Your task to perform on an android device: uninstall "Speedtest by Ookla" Image 0: 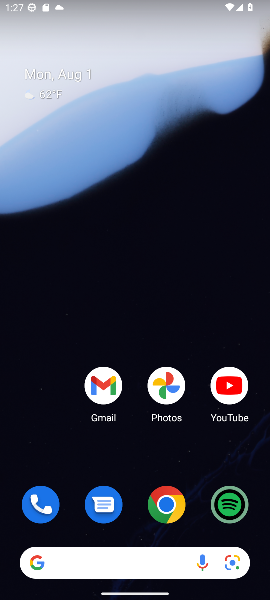
Step 0: drag from (115, 560) to (194, 12)
Your task to perform on an android device: uninstall "Speedtest by Ookla" Image 1: 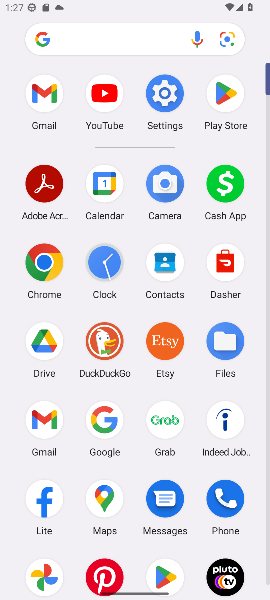
Step 1: click (227, 89)
Your task to perform on an android device: uninstall "Speedtest by Ookla" Image 2: 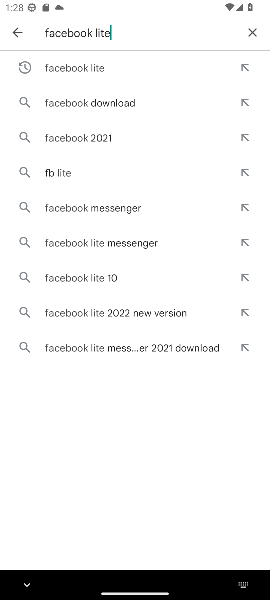
Step 2: click (227, 89)
Your task to perform on an android device: uninstall "Speedtest by Ookla" Image 3: 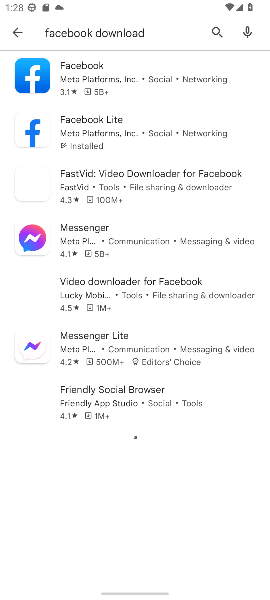
Step 3: click (252, 25)
Your task to perform on an android device: uninstall "Speedtest by Ookla" Image 4: 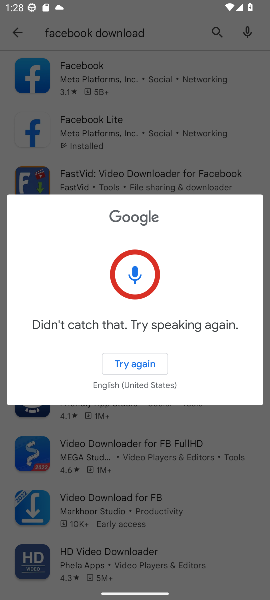
Step 4: click (224, 134)
Your task to perform on an android device: uninstall "Speedtest by Ookla" Image 5: 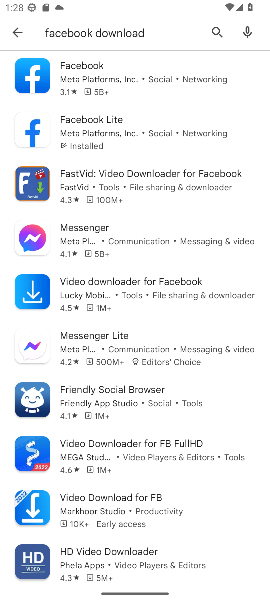
Step 5: click (219, 32)
Your task to perform on an android device: uninstall "Speedtest by Ookla" Image 6: 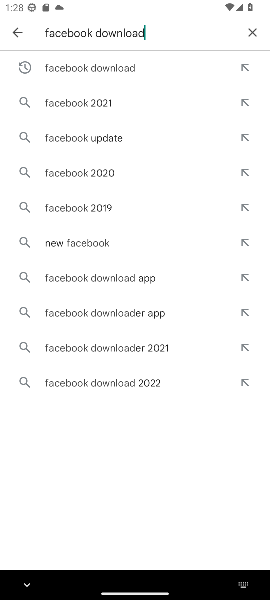
Step 6: click (255, 27)
Your task to perform on an android device: uninstall "Speedtest by Ookla" Image 7: 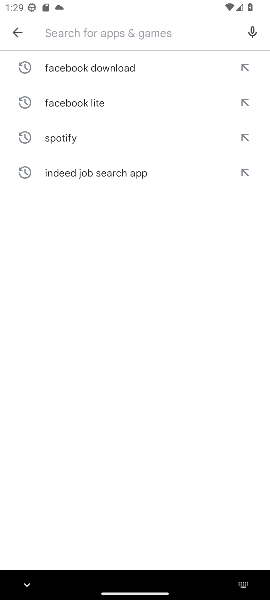
Step 7: type "speedtest by ookla"
Your task to perform on an android device: uninstall "Speedtest by Ookla" Image 8: 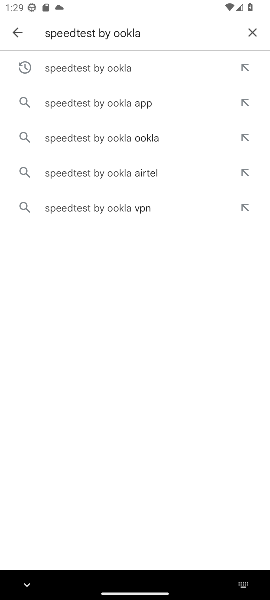
Step 8: click (121, 74)
Your task to perform on an android device: uninstall "Speedtest by Ookla" Image 9: 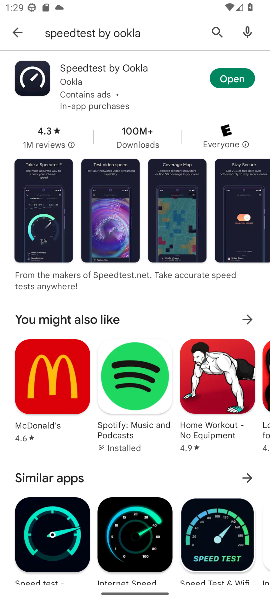
Step 9: task complete